Your task to perform on an android device: toggle javascript in the chrome app Image 0: 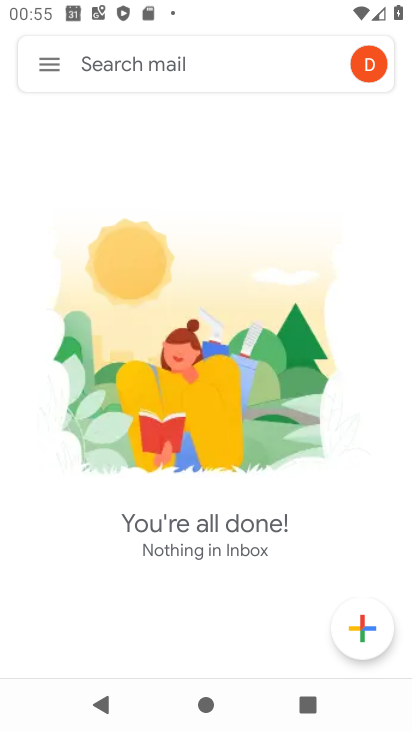
Step 0: press home button
Your task to perform on an android device: toggle javascript in the chrome app Image 1: 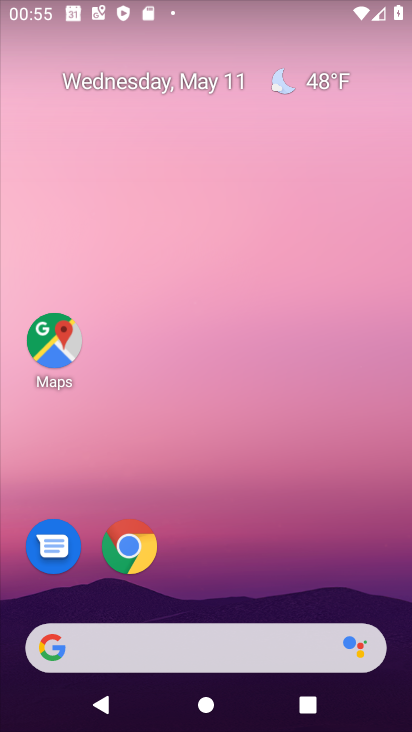
Step 1: click (152, 560)
Your task to perform on an android device: toggle javascript in the chrome app Image 2: 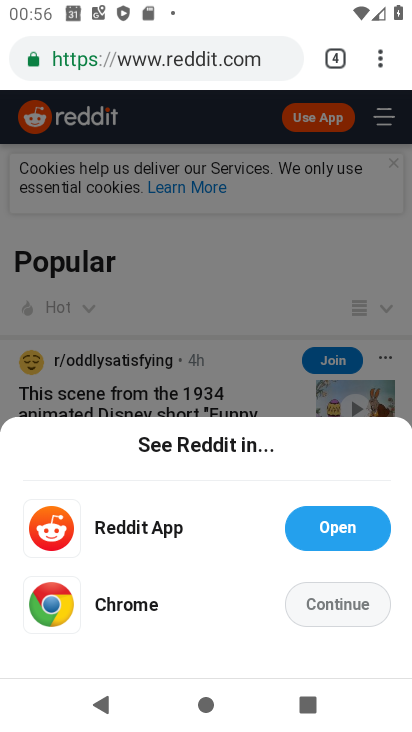
Step 2: click (376, 54)
Your task to perform on an android device: toggle javascript in the chrome app Image 3: 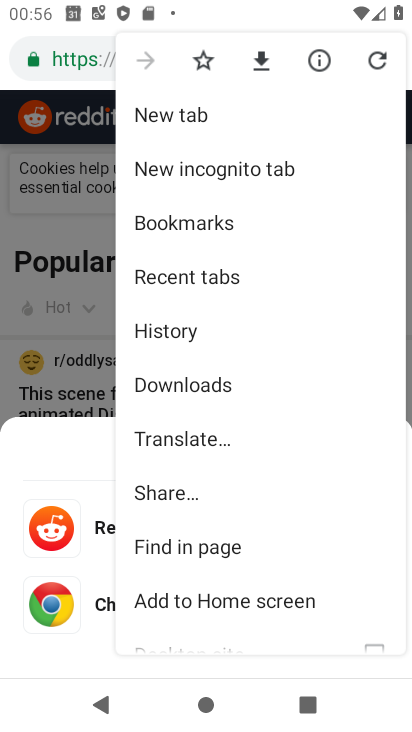
Step 3: drag from (217, 533) to (267, 238)
Your task to perform on an android device: toggle javascript in the chrome app Image 4: 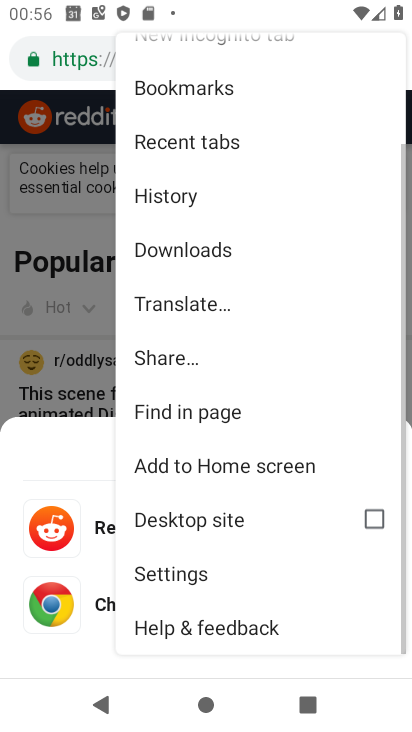
Step 4: click (198, 581)
Your task to perform on an android device: toggle javascript in the chrome app Image 5: 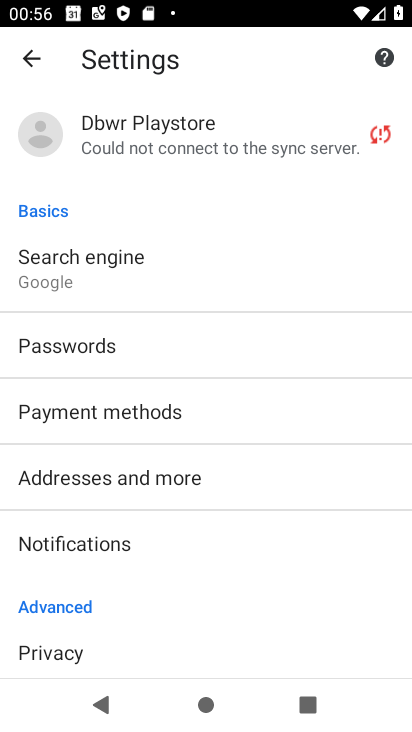
Step 5: drag from (214, 571) to (233, 280)
Your task to perform on an android device: toggle javascript in the chrome app Image 6: 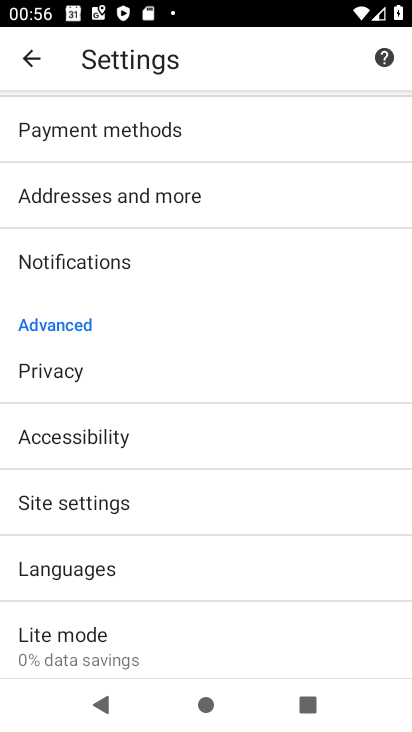
Step 6: click (123, 496)
Your task to perform on an android device: toggle javascript in the chrome app Image 7: 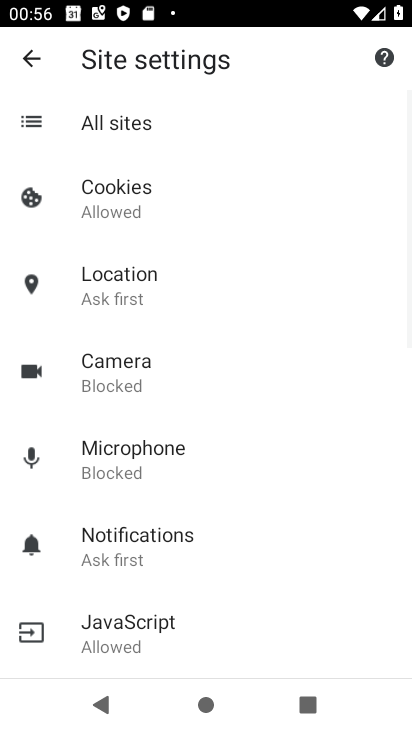
Step 7: click (189, 622)
Your task to perform on an android device: toggle javascript in the chrome app Image 8: 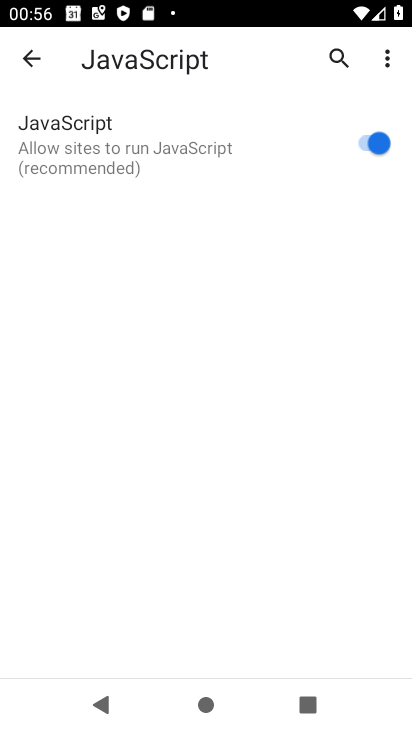
Step 8: click (361, 146)
Your task to perform on an android device: toggle javascript in the chrome app Image 9: 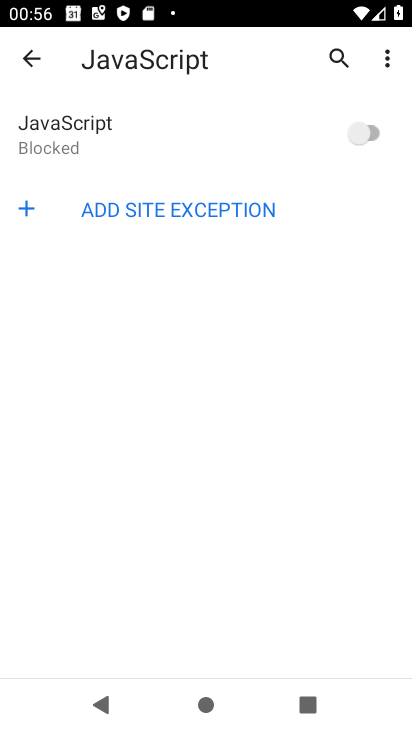
Step 9: task complete